Your task to perform on an android device: turn off sleep mode Image 0: 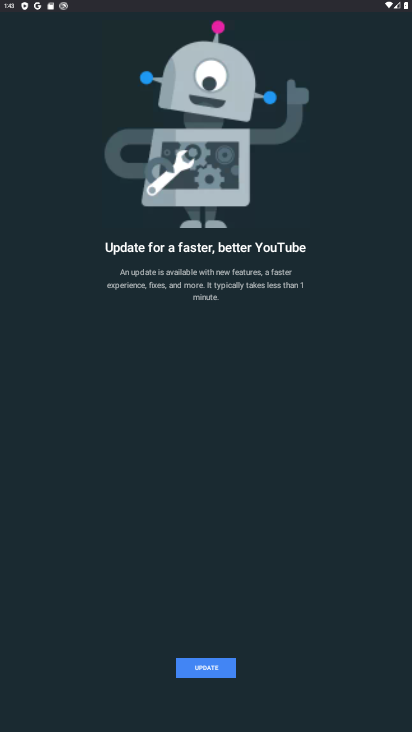
Step 0: press home button
Your task to perform on an android device: turn off sleep mode Image 1: 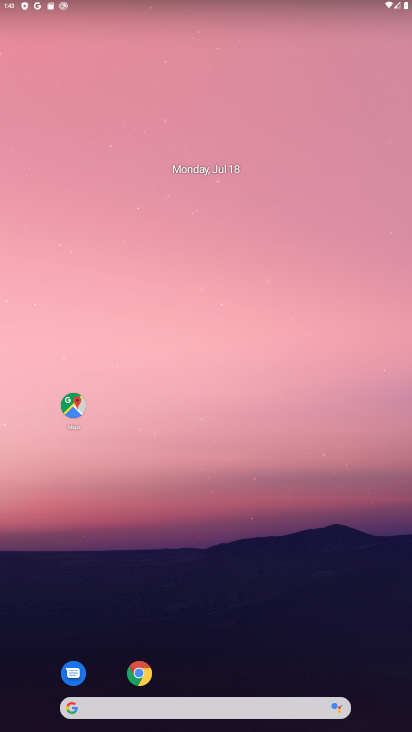
Step 1: drag from (191, 703) to (217, 186)
Your task to perform on an android device: turn off sleep mode Image 2: 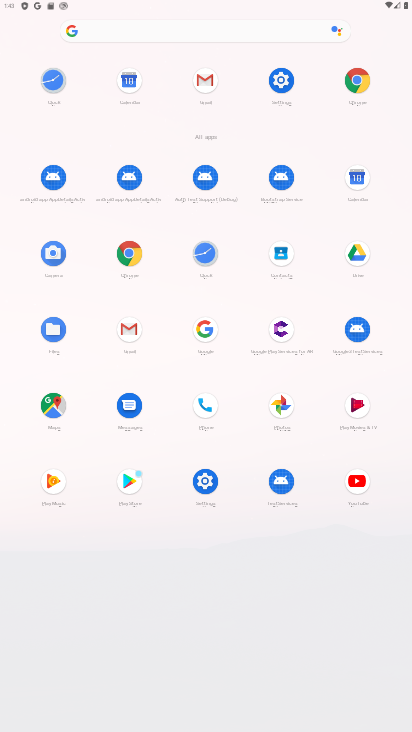
Step 2: click (280, 80)
Your task to perform on an android device: turn off sleep mode Image 3: 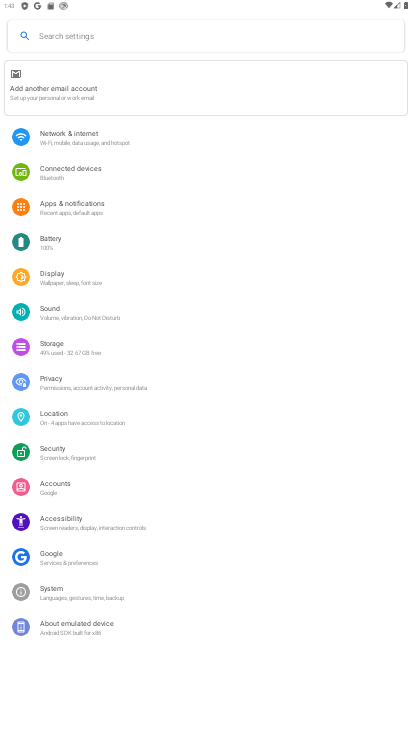
Step 3: click (93, 213)
Your task to perform on an android device: turn off sleep mode Image 4: 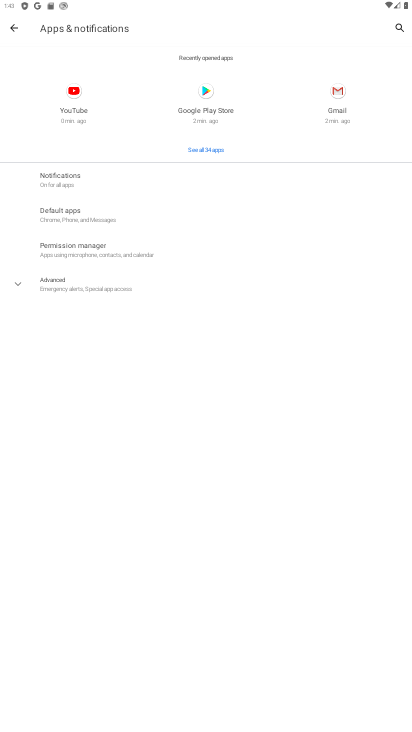
Step 4: click (77, 285)
Your task to perform on an android device: turn off sleep mode Image 5: 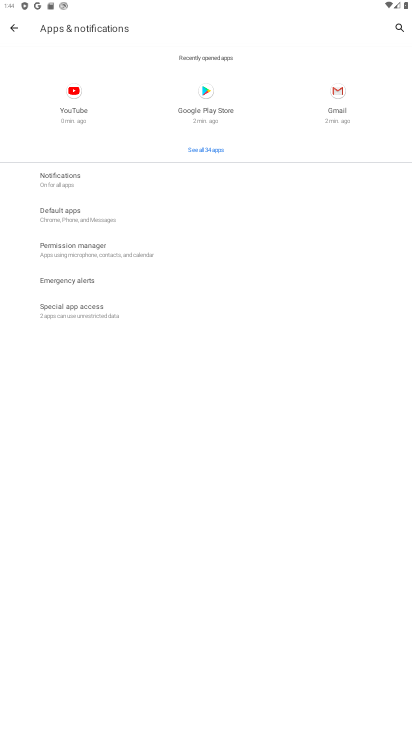
Step 5: press back button
Your task to perform on an android device: turn off sleep mode Image 6: 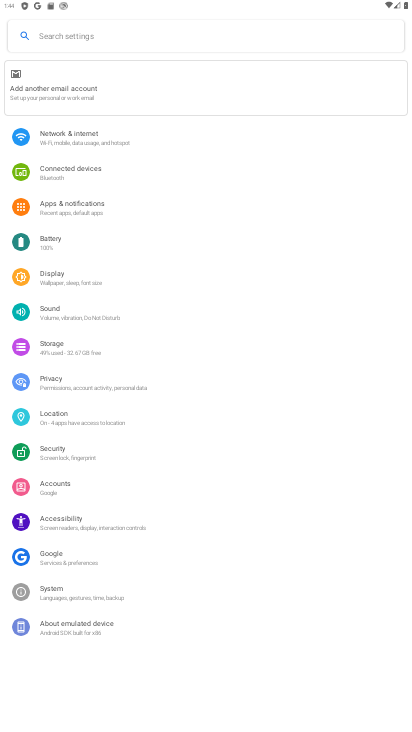
Step 6: click (62, 254)
Your task to perform on an android device: turn off sleep mode Image 7: 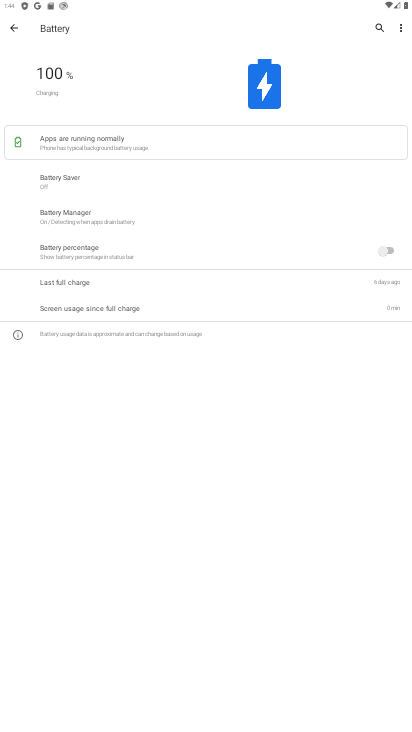
Step 7: click (142, 308)
Your task to perform on an android device: turn off sleep mode Image 8: 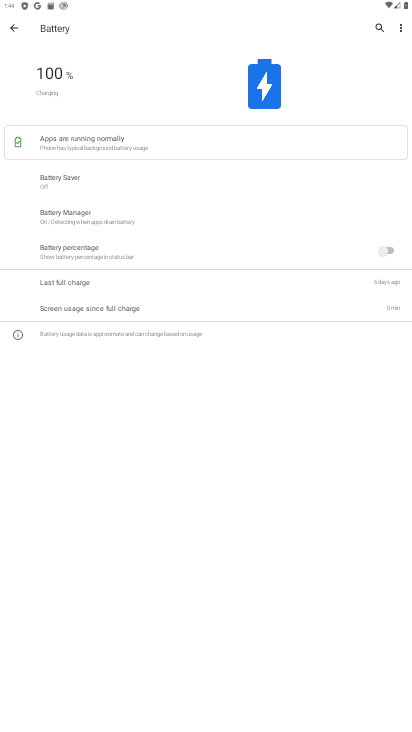
Step 8: click (75, 280)
Your task to perform on an android device: turn off sleep mode Image 9: 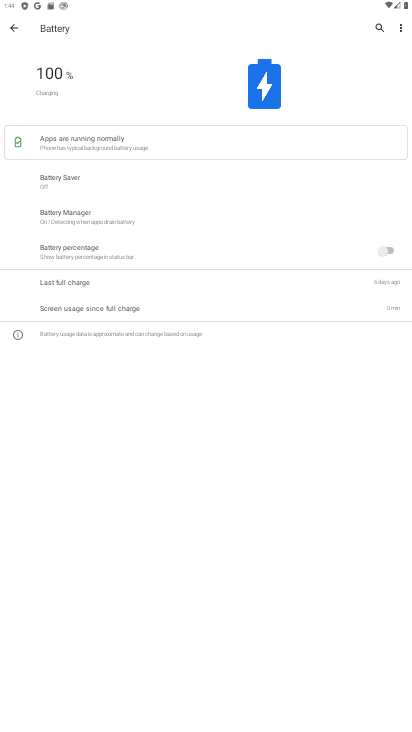
Step 9: click (99, 255)
Your task to perform on an android device: turn off sleep mode Image 10: 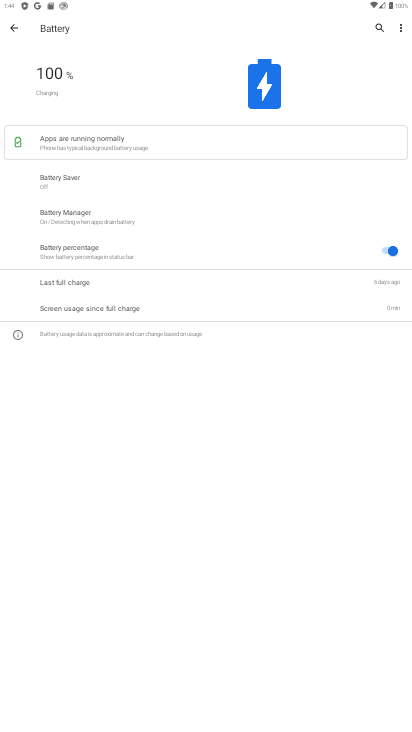
Step 10: click (99, 255)
Your task to perform on an android device: turn off sleep mode Image 11: 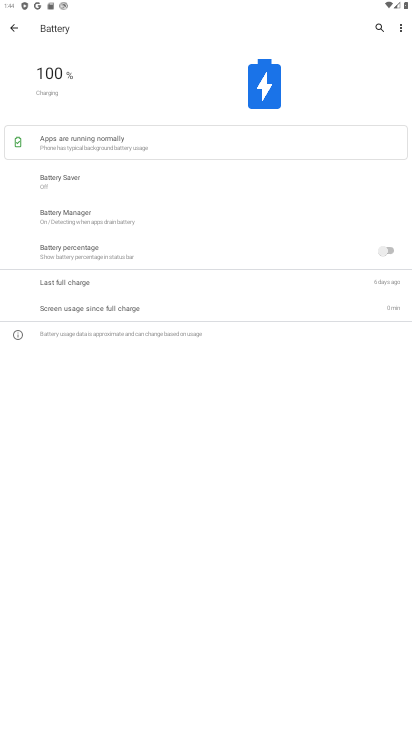
Step 11: press back button
Your task to perform on an android device: turn off sleep mode Image 12: 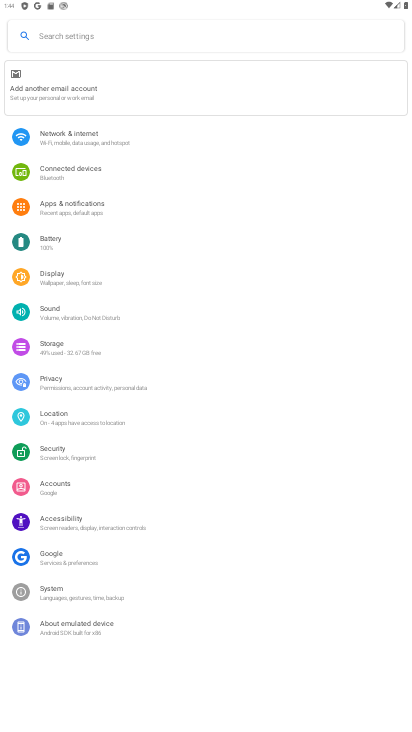
Step 12: click (98, 280)
Your task to perform on an android device: turn off sleep mode Image 13: 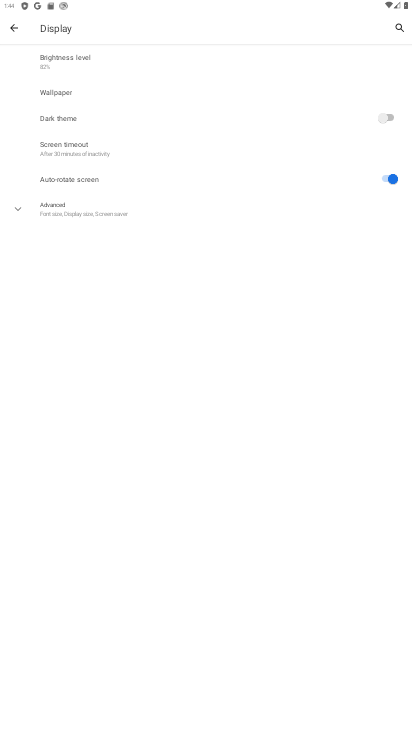
Step 13: click (104, 155)
Your task to perform on an android device: turn off sleep mode Image 14: 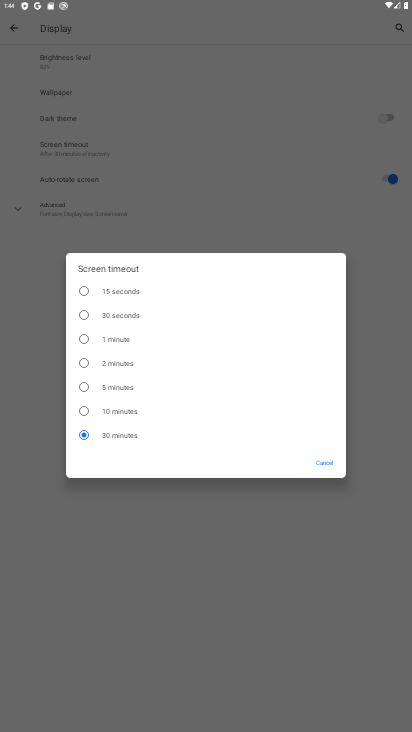
Step 14: click (79, 437)
Your task to perform on an android device: turn off sleep mode Image 15: 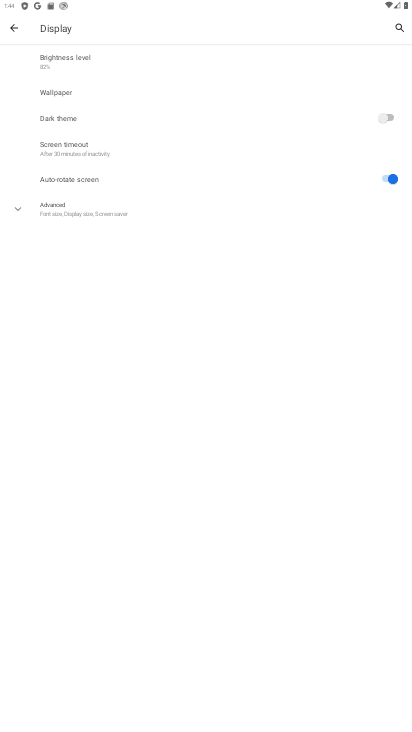
Step 15: task complete